Your task to perform on an android device: Open settings on Google Maps Image 0: 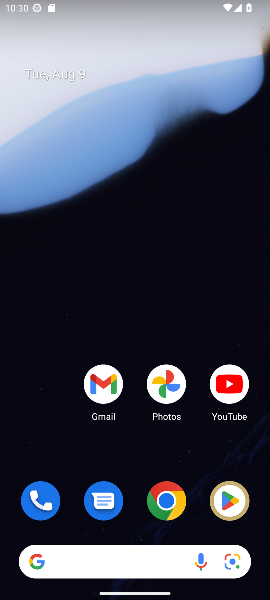
Step 0: click (99, 561)
Your task to perform on an android device: Open settings on Google Maps Image 1: 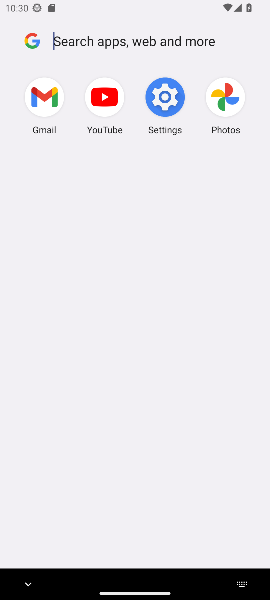
Step 1: press back button
Your task to perform on an android device: Open settings on Google Maps Image 2: 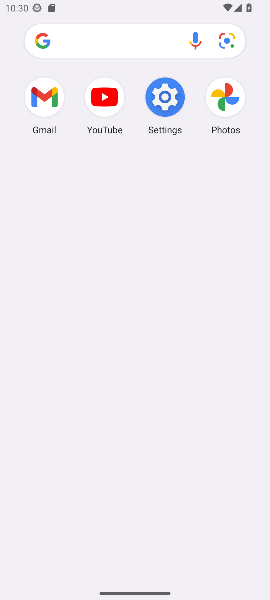
Step 2: press back button
Your task to perform on an android device: Open settings on Google Maps Image 3: 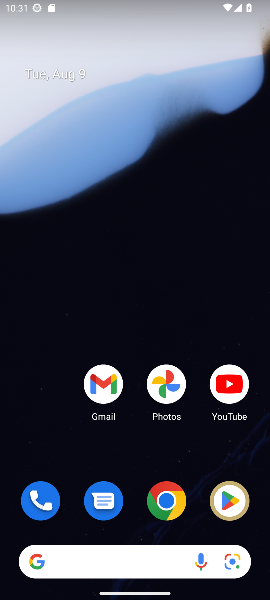
Step 3: drag from (125, 288) to (97, 68)
Your task to perform on an android device: Open settings on Google Maps Image 4: 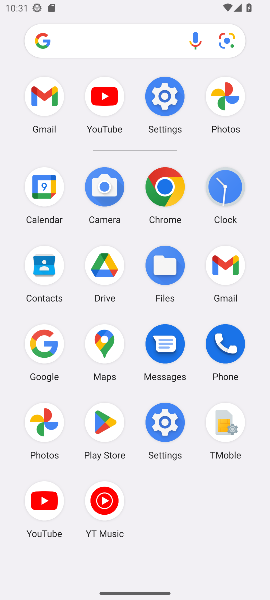
Step 4: click (105, 348)
Your task to perform on an android device: Open settings on Google Maps Image 5: 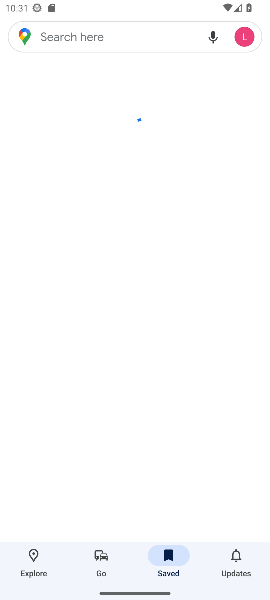
Step 5: click (242, 33)
Your task to perform on an android device: Open settings on Google Maps Image 6: 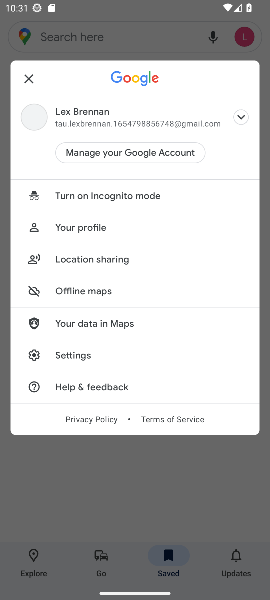
Step 6: click (69, 352)
Your task to perform on an android device: Open settings on Google Maps Image 7: 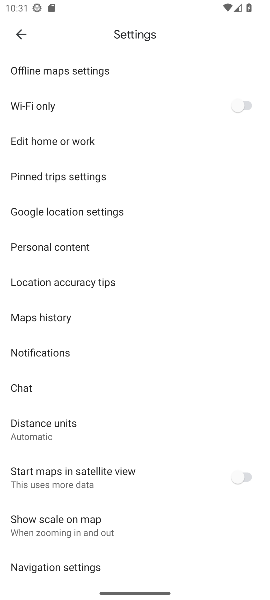
Step 7: task complete